Your task to perform on an android device: Go to privacy settings Image 0: 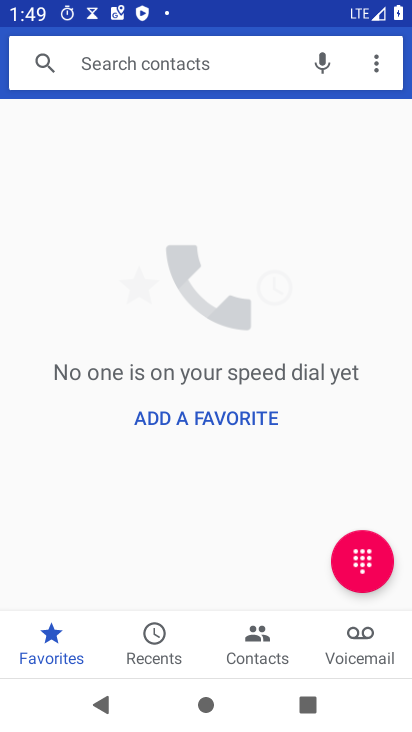
Step 0: press home button
Your task to perform on an android device: Go to privacy settings Image 1: 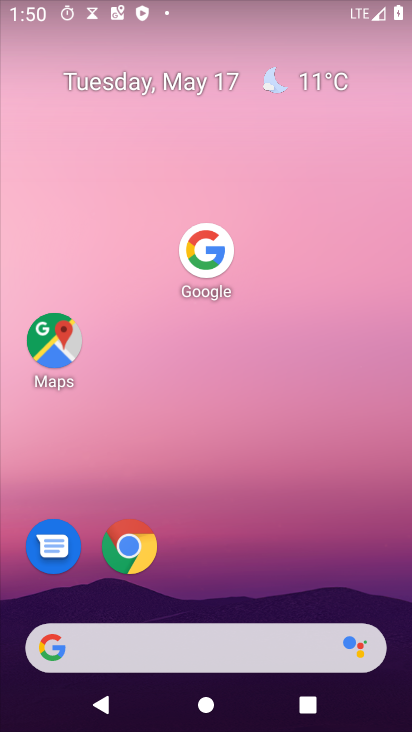
Step 1: drag from (173, 622) to (301, 144)
Your task to perform on an android device: Go to privacy settings Image 2: 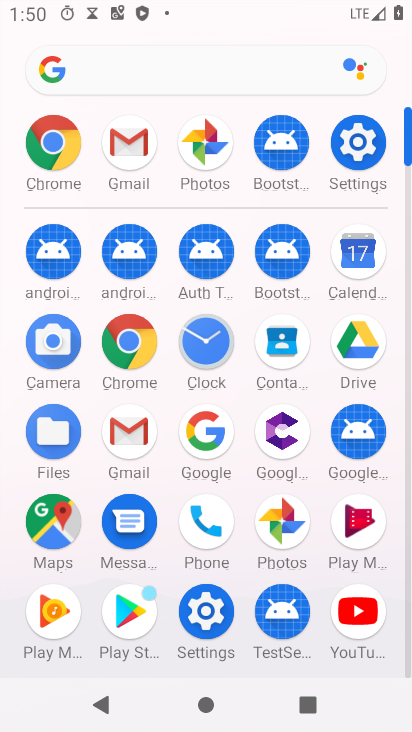
Step 2: click (358, 159)
Your task to perform on an android device: Go to privacy settings Image 3: 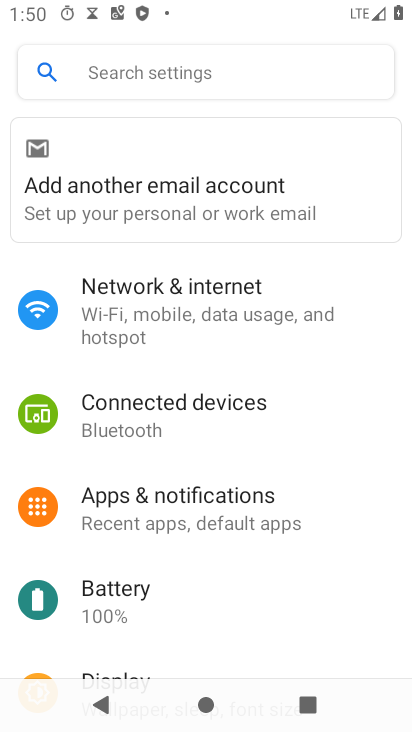
Step 3: drag from (231, 606) to (379, 128)
Your task to perform on an android device: Go to privacy settings Image 4: 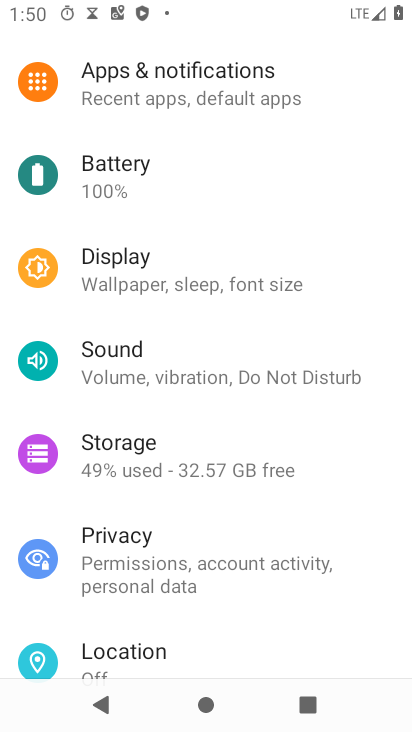
Step 4: click (140, 543)
Your task to perform on an android device: Go to privacy settings Image 5: 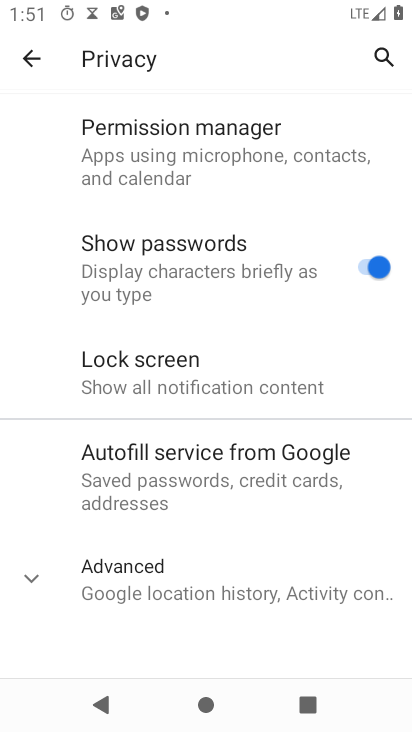
Step 5: task complete